Your task to perform on an android device: delete location history Image 0: 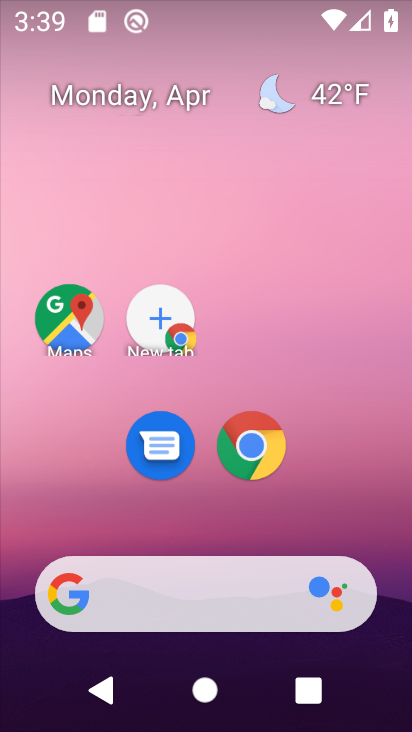
Step 0: drag from (218, 489) to (183, 106)
Your task to perform on an android device: delete location history Image 1: 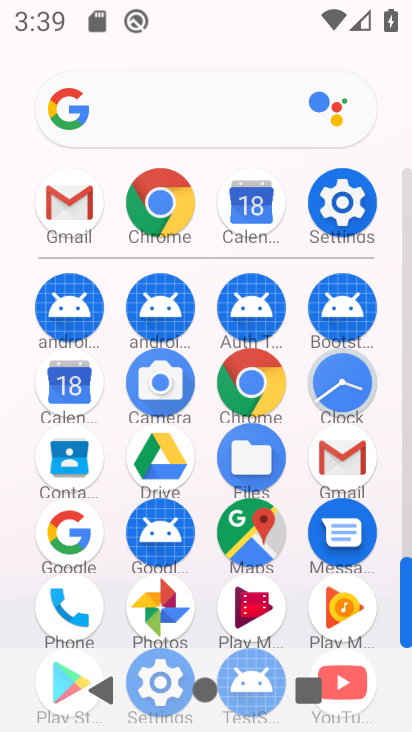
Step 1: click (250, 525)
Your task to perform on an android device: delete location history Image 2: 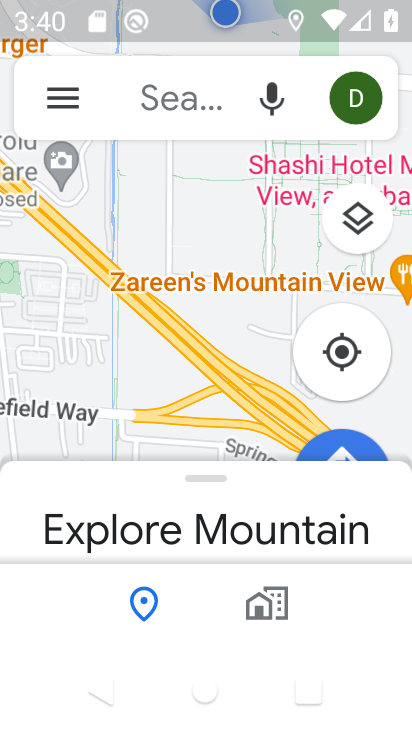
Step 2: click (59, 96)
Your task to perform on an android device: delete location history Image 3: 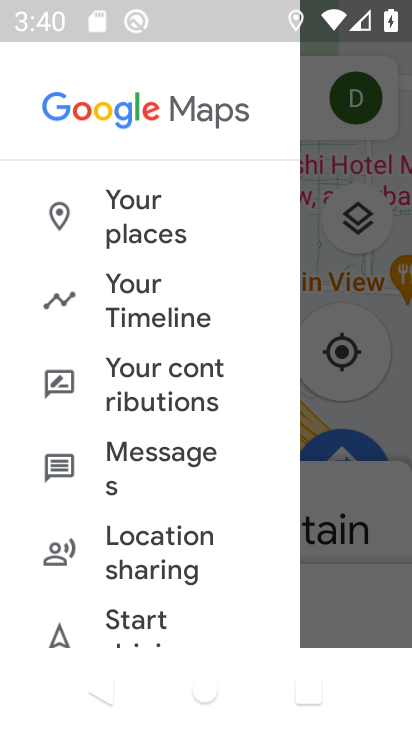
Step 3: click (158, 297)
Your task to perform on an android device: delete location history Image 4: 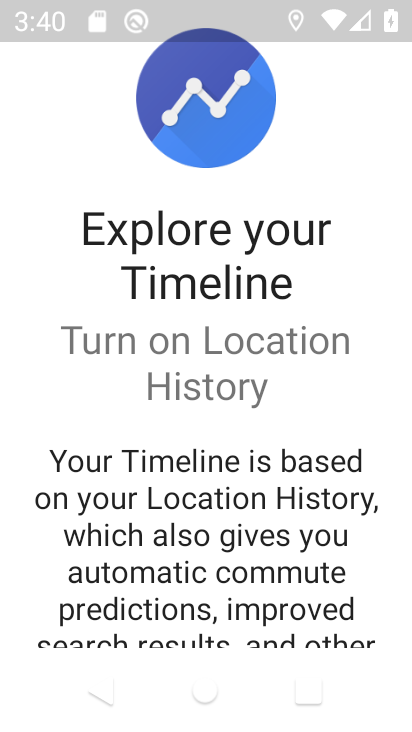
Step 4: drag from (224, 482) to (223, 155)
Your task to perform on an android device: delete location history Image 5: 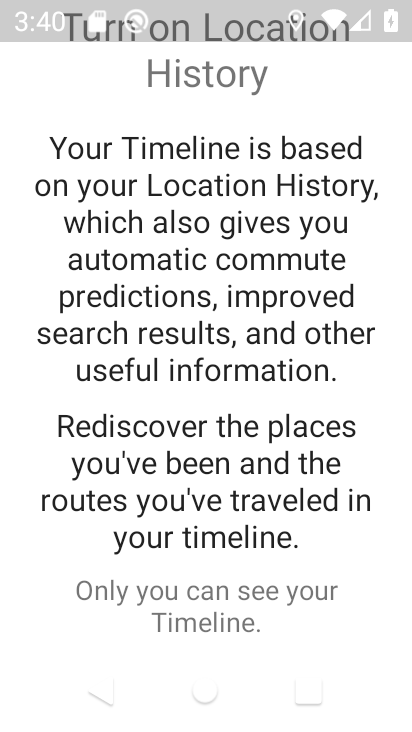
Step 5: drag from (221, 543) to (223, 83)
Your task to perform on an android device: delete location history Image 6: 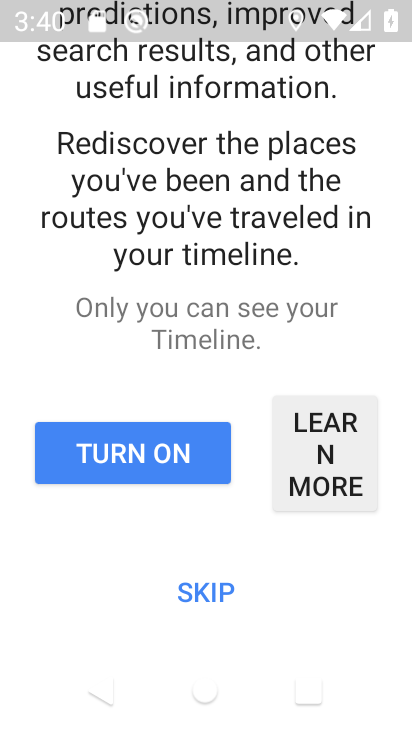
Step 6: click (122, 457)
Your task to perform on an android device: delete location history Image 7: 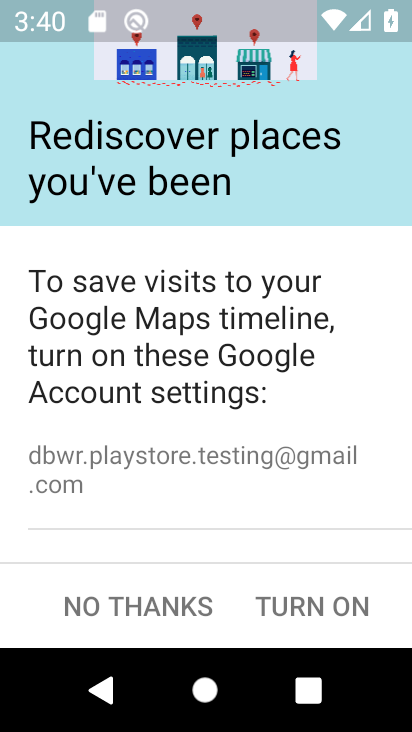
Step 7: click (167, 607)
Your task to perform on an android device: delete location history Image 8: 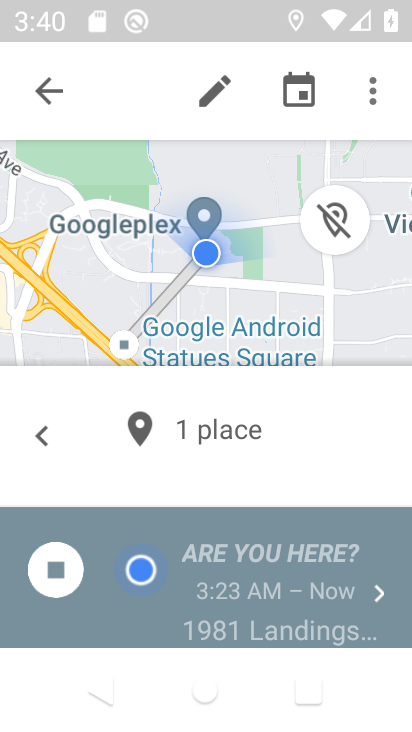
Step 8: click (374, 89)
Your task to perform on an android device: delete location history Image 9: 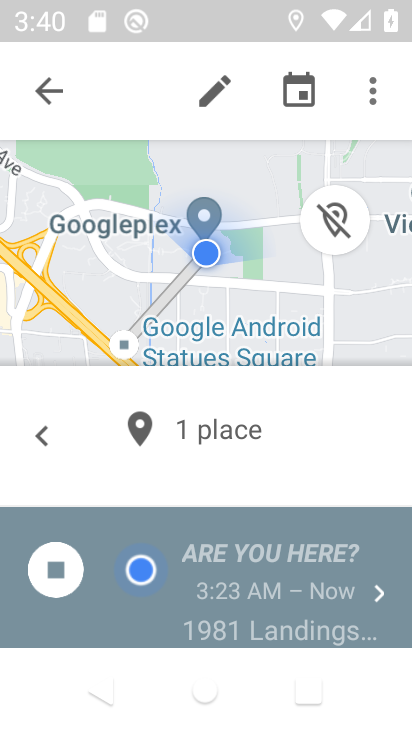
Step 9: click (361, 95)
Your task to perform on an android device: delete location history Image 10: 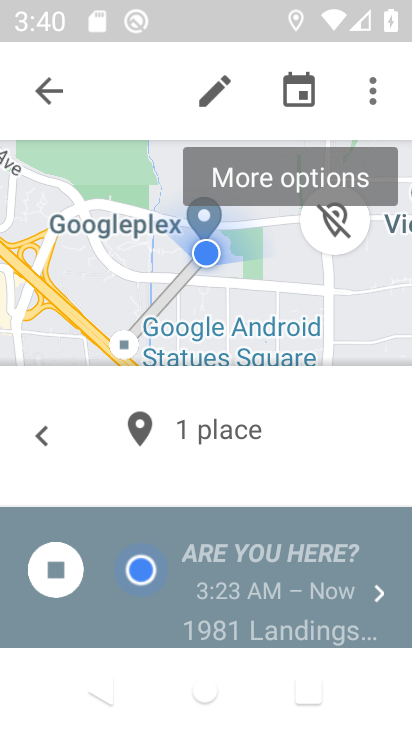
Step 10: click (321, 171)
Your task to perform on an android device: delete location history Image 11: 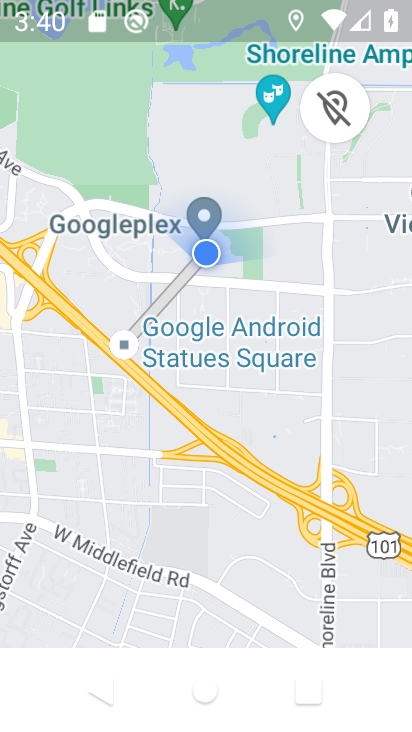
Step 11: click (287, 223)
Your task to perform on an android device: delete location history Image 12: 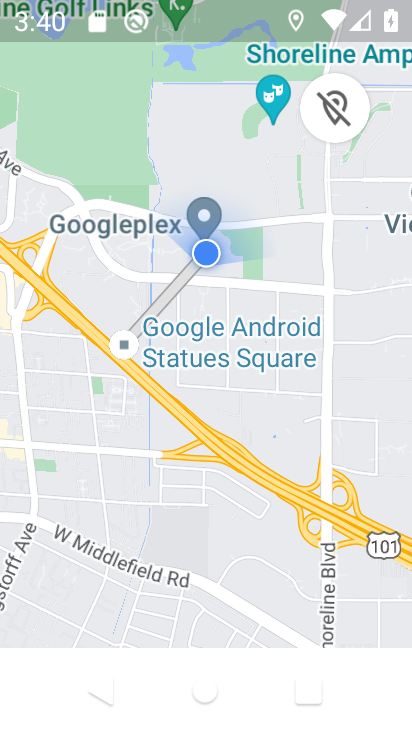
Step 12: drag from (150, 439) to (234, 532)
Your task to perform on an android device: delete location history Image 13: 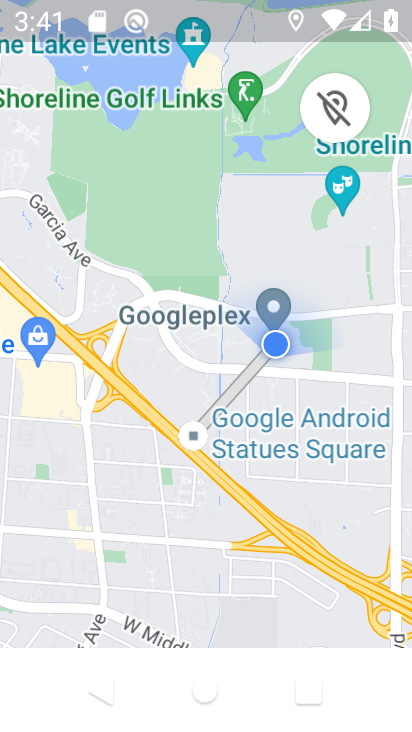
Step 13: press back button
Your task to perform on an android device: delete location history Image 14: 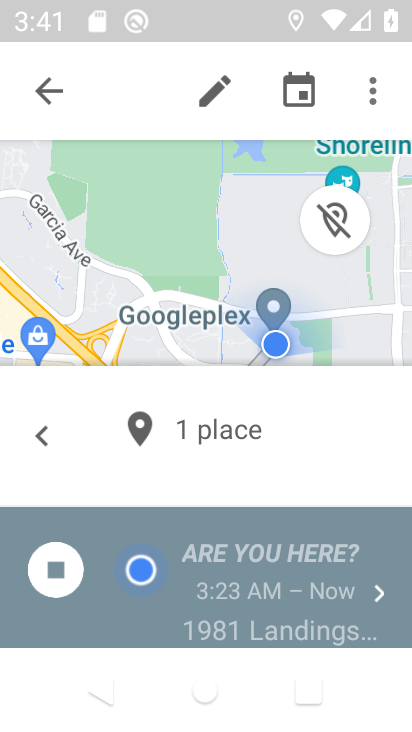
Step 14: click (377, 87)
Your task to perform on an android device: delete location history Image 15: 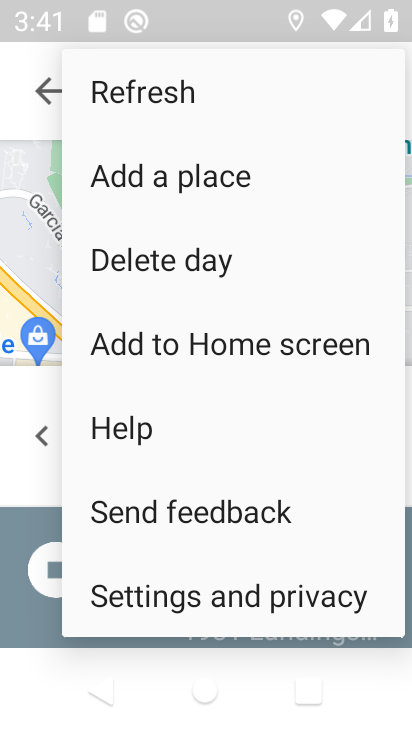
Step 15: click (256, 583)
Your task to perform on an android device: delete location history Image 16: 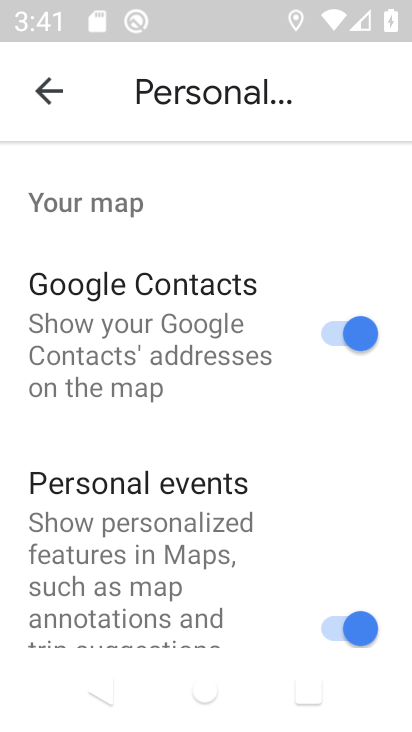
Step 16: drag from (247, 597) to (272, 62)
Your task to perform on an android device: delete location history Image 17: 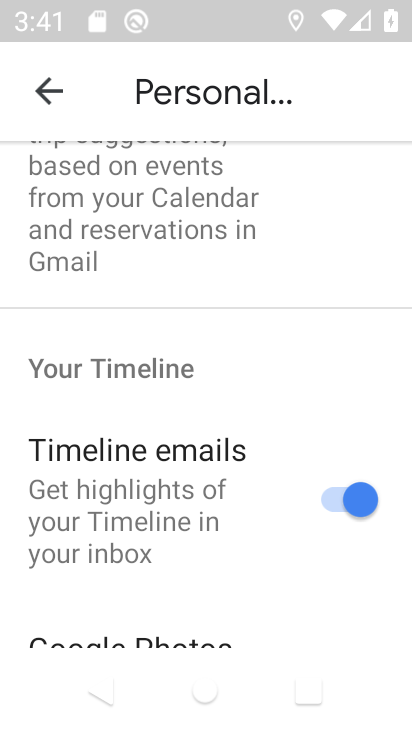
Step 17: drag from (204, 611) to (221, 139)
Your task to perform on an android device: delete location history Image 18: 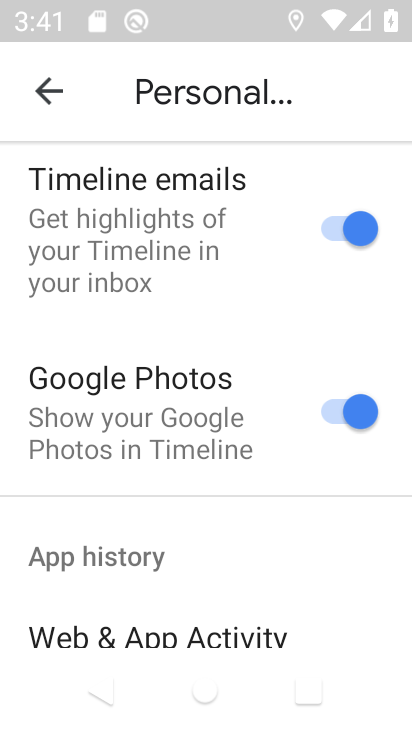
Step 18: drag from (203, 565) to (203, 135)
Your task to perform on an android device: delete location history Image 19: 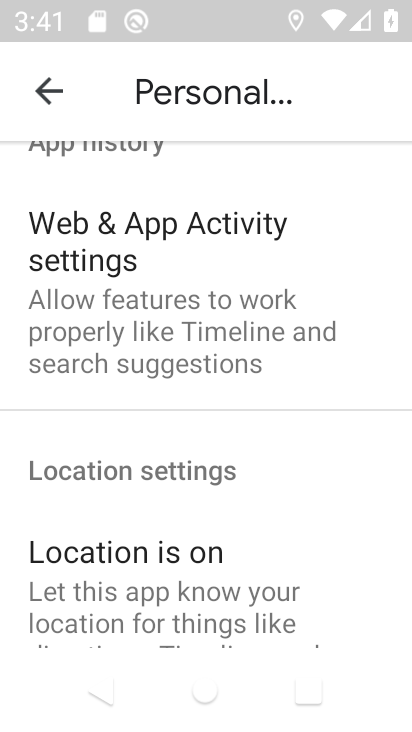
Step 19: drag from (202, 603) to (192, 130)
Your task to perform on an android device: delete location history Image 20: 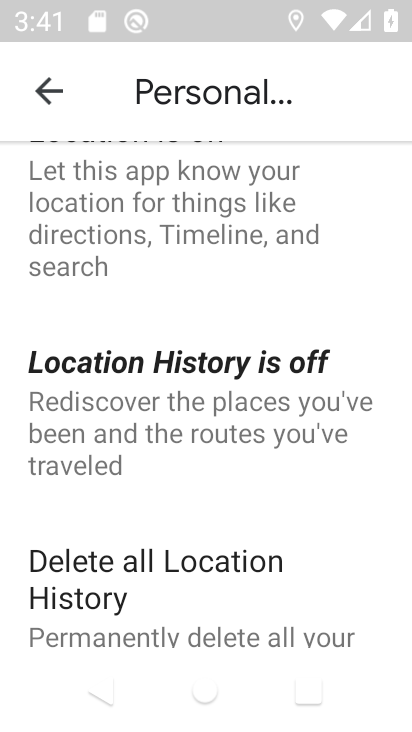
Step 20: drag from (183, 558) to (193, 242)
Your task to perform on an android device: delete location history Image 21: 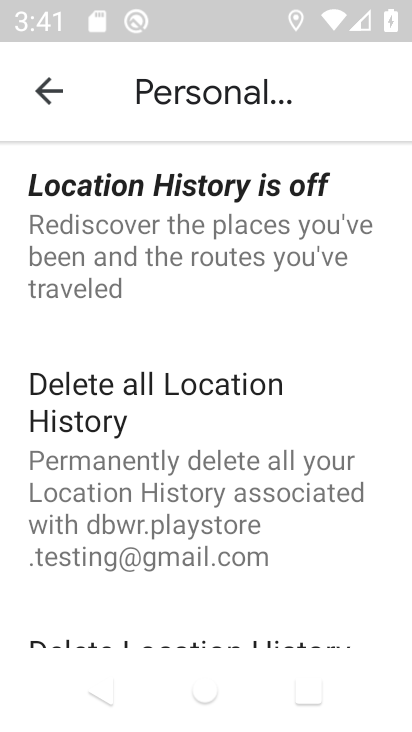
Step 21: click (186, 450)
Your task to perform on an android device: delete location history Image 22: 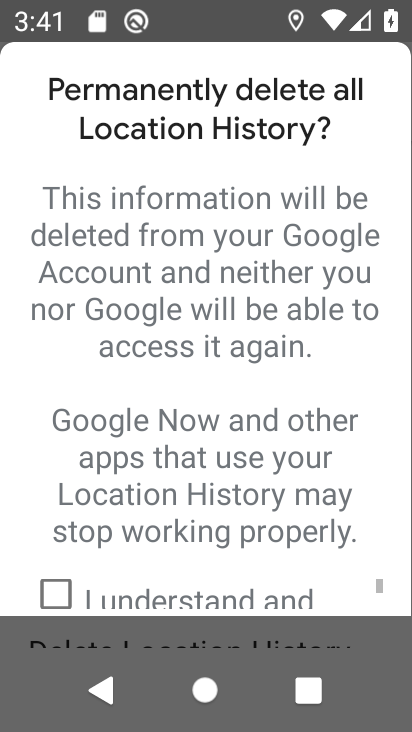
Step 22: drag from (209, 425) to (198, 164)
Your task to perform on an android device: delete location history Image 23: 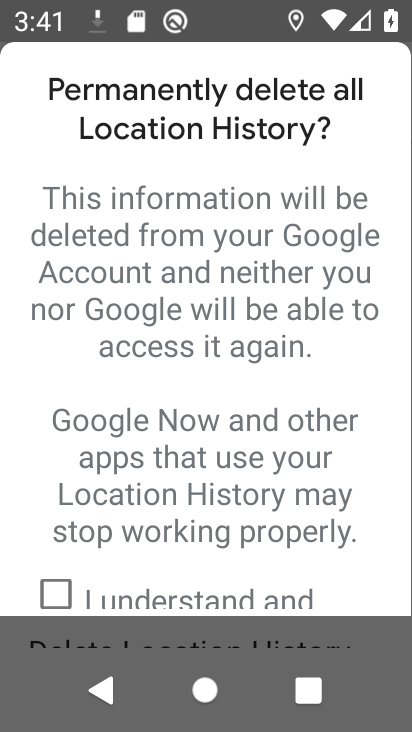
Step 23: click (58, 596)
Your task to perform on an android device: delete location history Image 24: 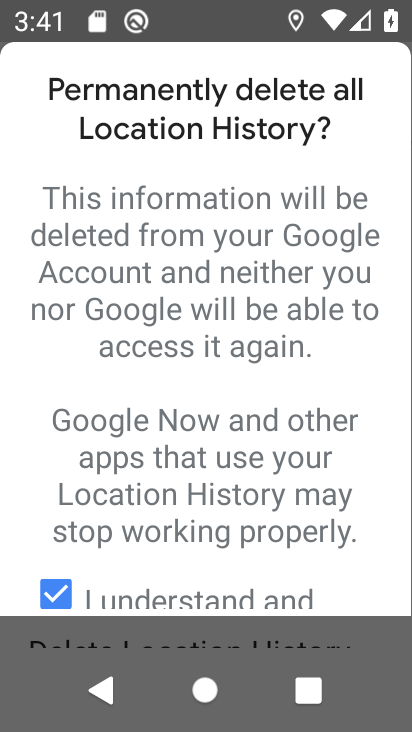
Step 24: task complete